Your task to perform on an android device: toggle pop-ups in chrome Image 0: 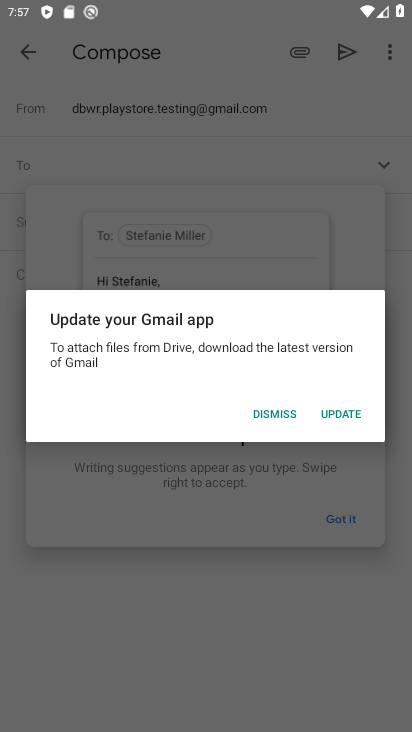
Step 0: press home button
Your task to perform on an android device: toggle pop-ups in chrome Image 1: 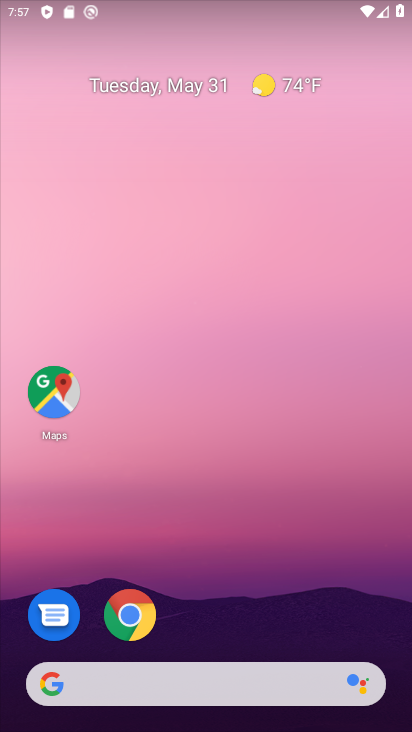
Step 1: click (134, 622)
Your task to perform on an android device: toggle pop-ups in chrome Image 2: 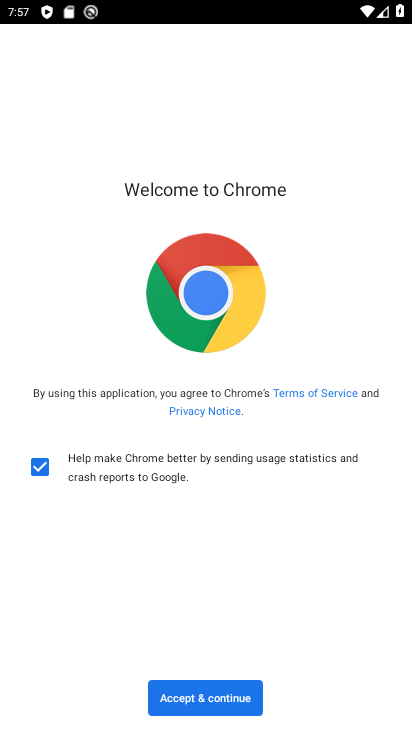
Step 2: click (215, 685)
Your task to perform on an android device: toggle pop-ups in chrome Image 3: 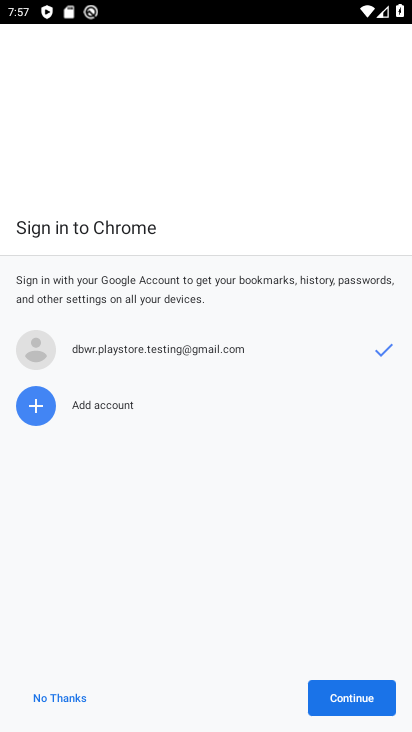
Step 3: click (355, 701)
Your task to perform on an android device: toggle pop-ups in chrome Image 4: 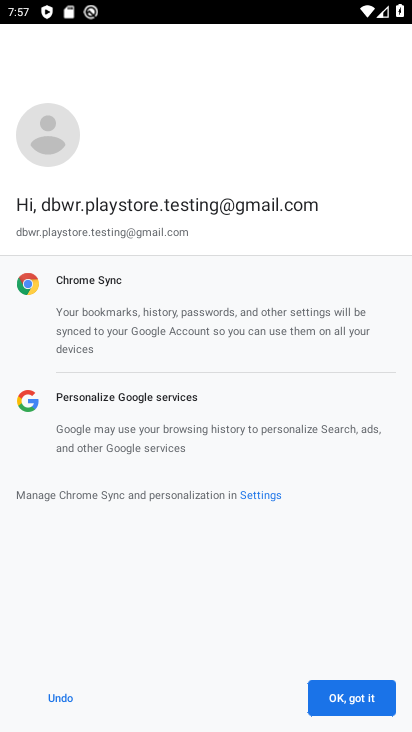
Step 4: click (355, 700)
Your task to perform on an android device: toggle pop-ups in chrome Image 5: 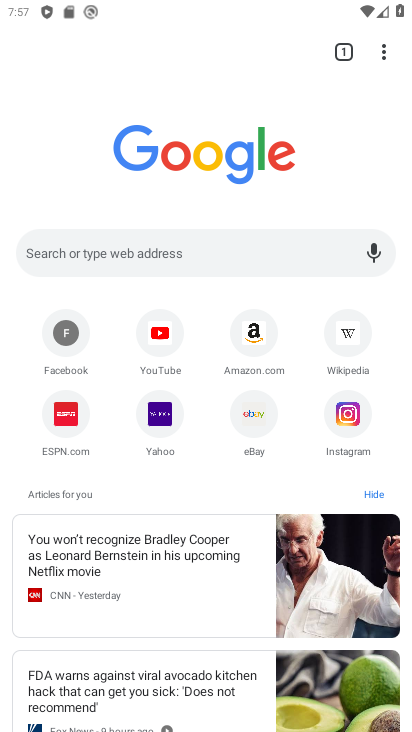
Step 5: drag from (384, 44) to (249, 442)
Your task to perform on an android device: toggle pop-ups in chrome Image 6: 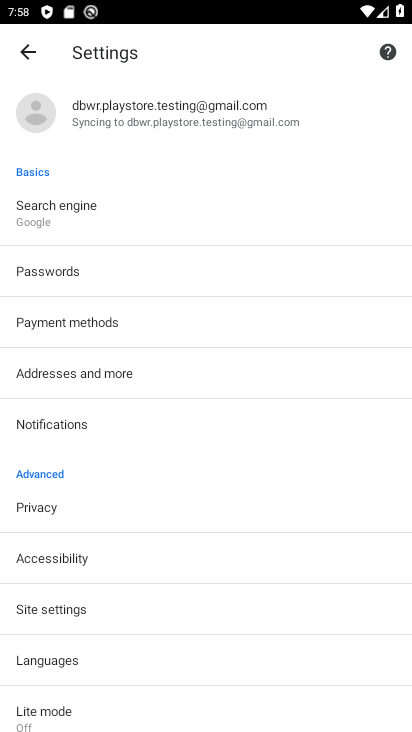
Step 6: click (65, 607)
Your task to perform on an android device: toggle pop-ups in chrome Image 7: 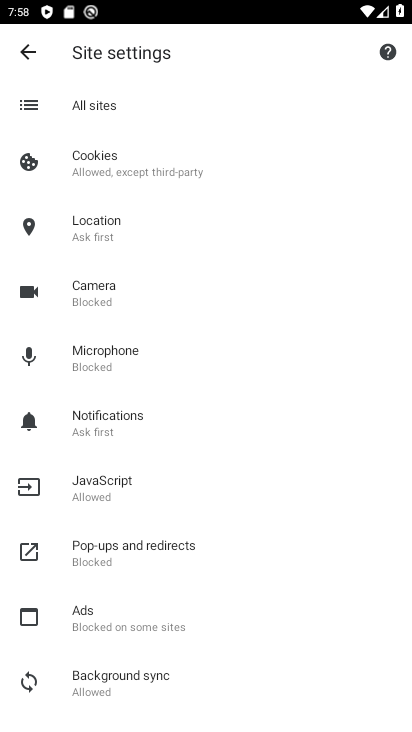
Step 7: click (138, 551)
Your task to perform on an android device: toggle pop-ups in chrome Image 8: 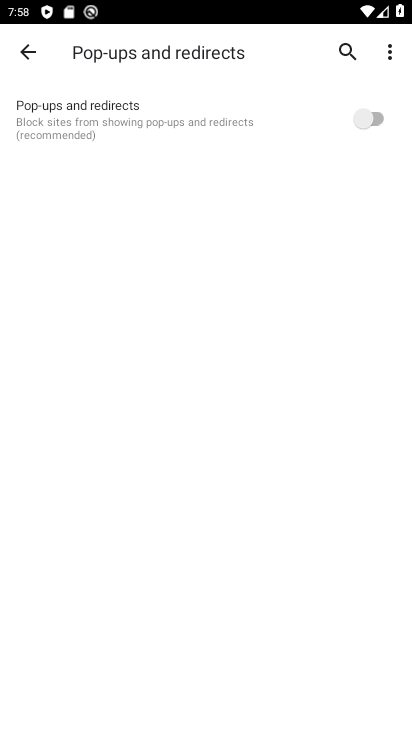
Step 8: click (375, 117)
Your task to perform on an android device: toggle pop-ups in chrome Image 9: 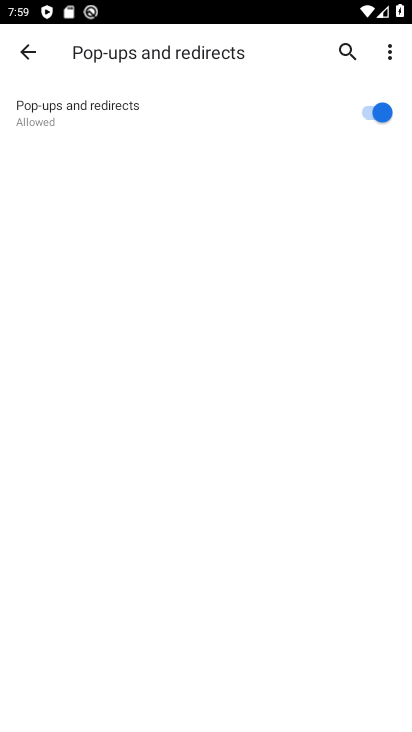
Step 9: task complete